Your task to perform on an android device: turn on sleep mode Image 0: 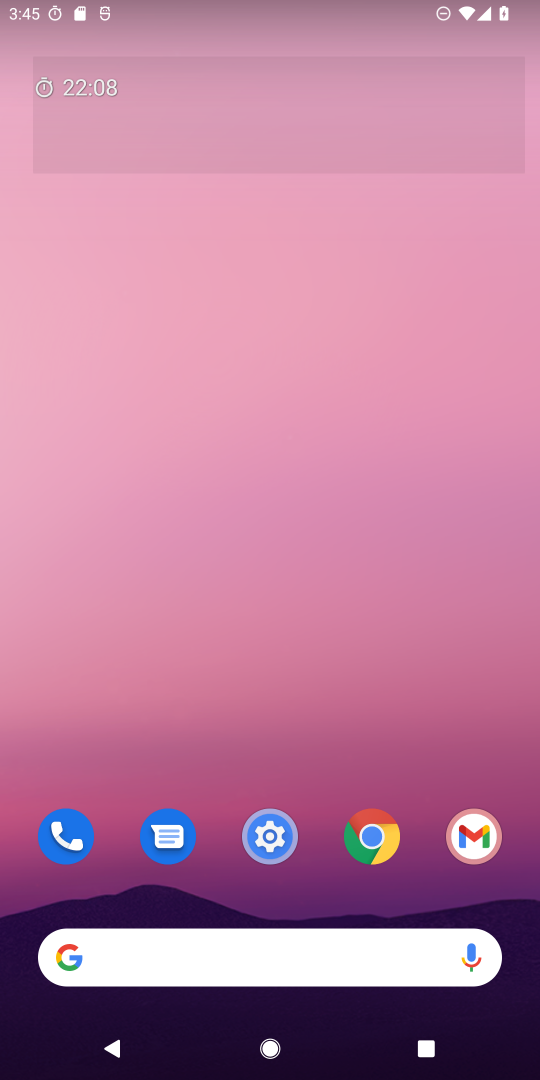
Step 0: click (248, 841)
Your task to perform on an android device: turn on sleep mode Image 1: 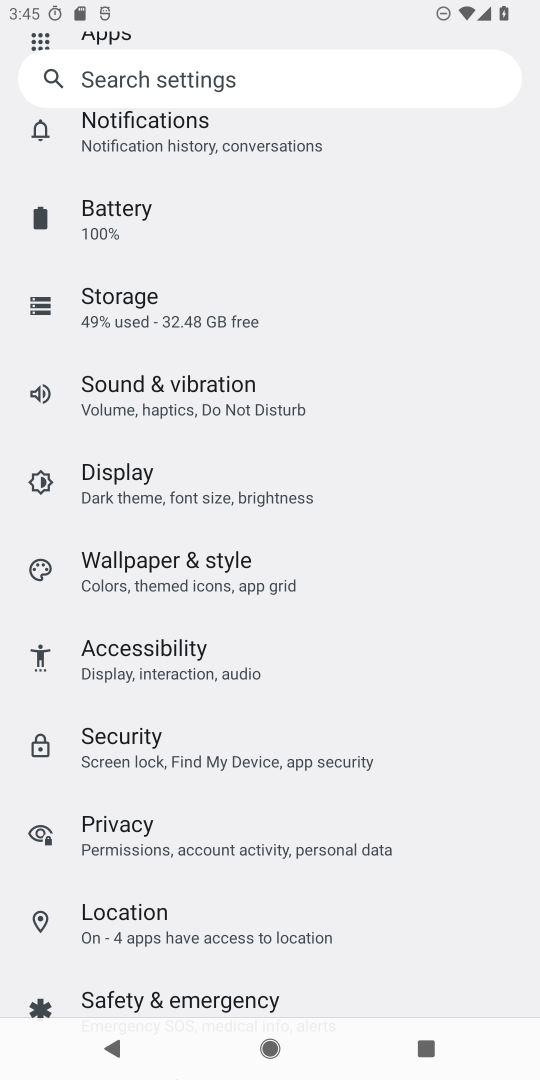
Step 1: click (246, 79)
Your task to perform on an android device: turn on sleep mode Image 2: 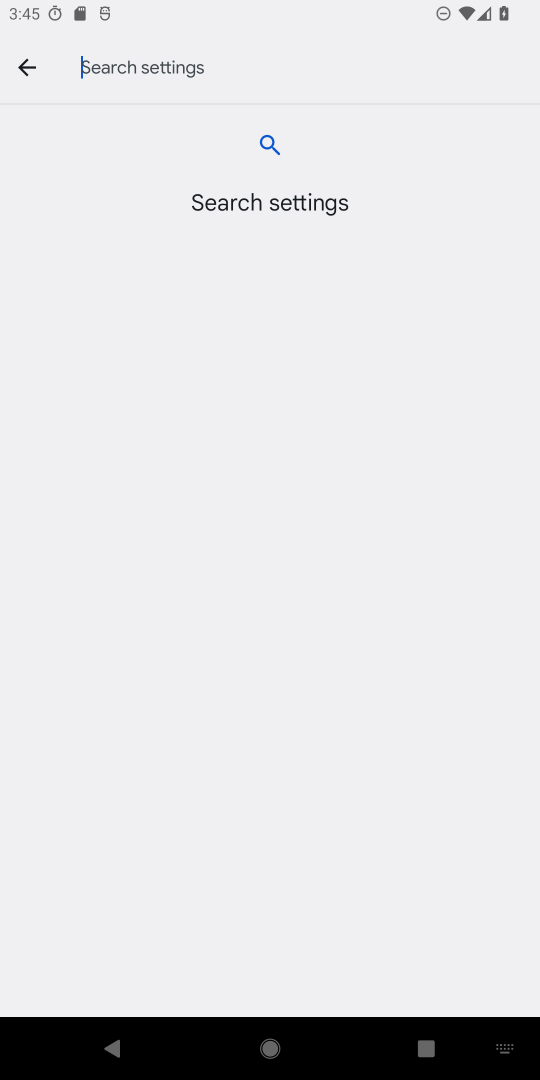
Step 2: type "sleep mode"
Your task to perform on an android device: turn on sleep mode Image 3: 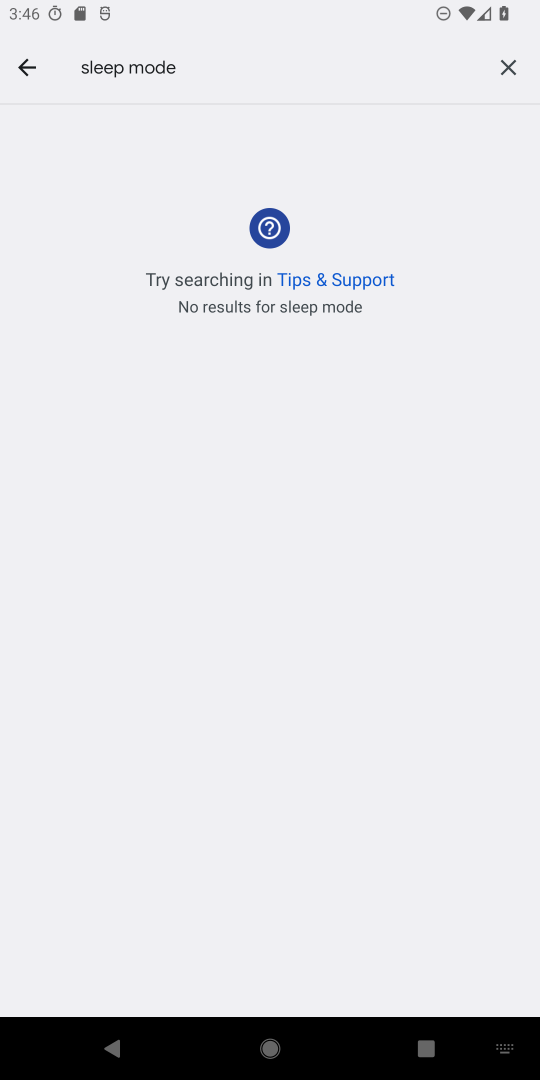
Step 3: task complete